Your task to perform on an android device: toggle airplane mode Image 0: 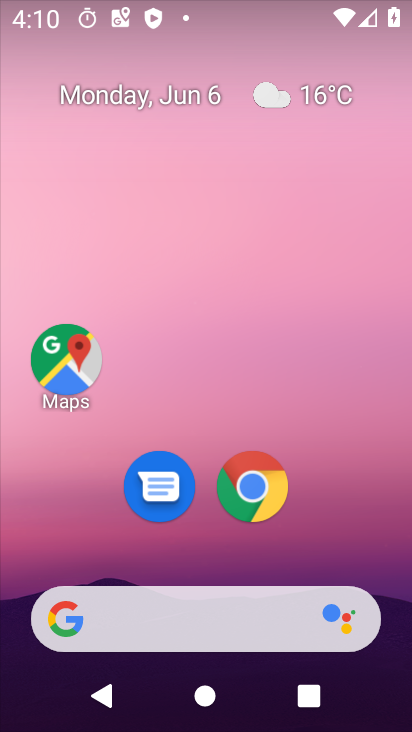
Step 0: drag from (232, 7) to (200, 485)
Your task to perform on an android device: toggle airplane mode Image 1: 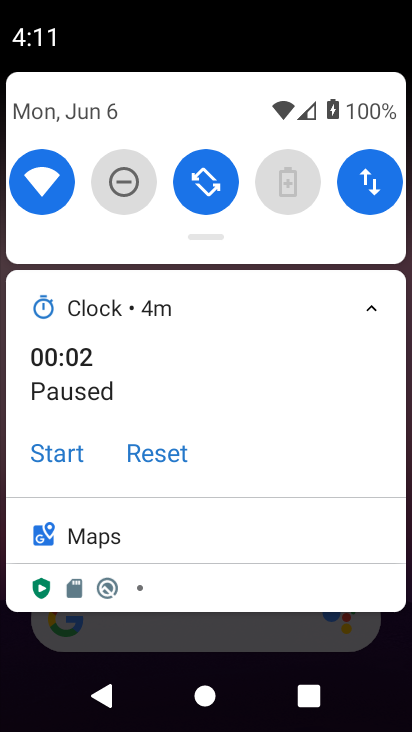
Step 1: drag from (314, 226) to (305, 501)
Your task to perform on an android device: toggle airplane mode Image 2: 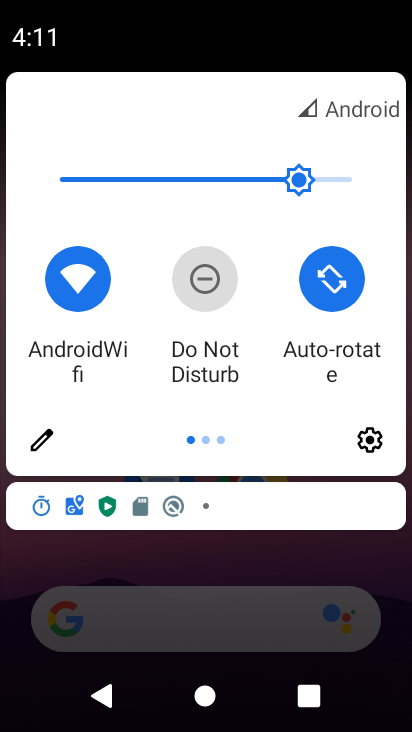
Step 2: drag from (380, 344) to (71, 336)
Your task to perform on an android device: toggle airplane mode Image 3: 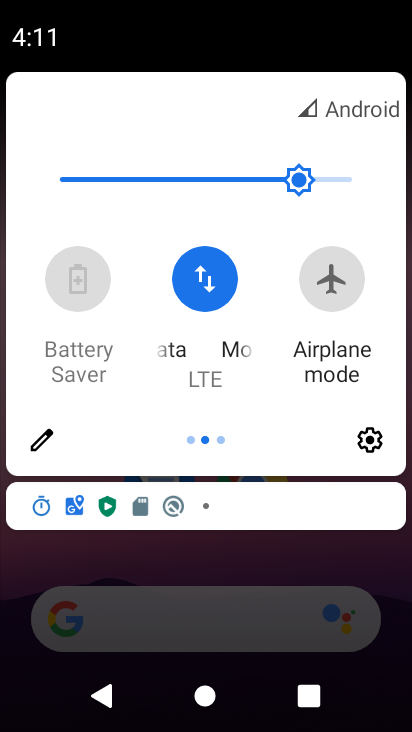
Step 3: drag from (340, 343) to (49, 322)
Your task to perform on an android device: toggle airplane mode Image 4: 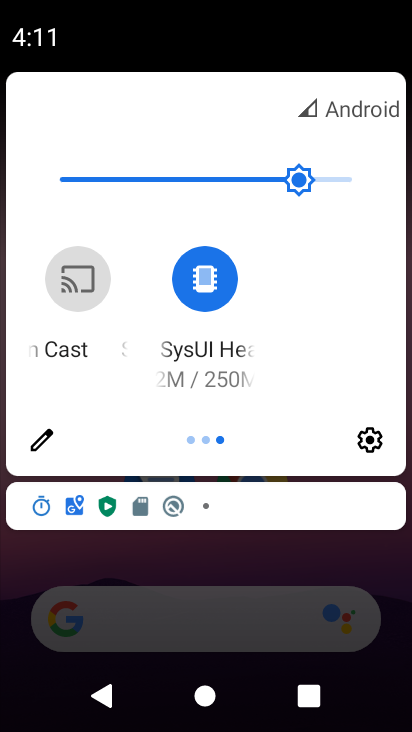
Step 4: drag from (107, 321) to (355, 330)
Your task to perform on an android device: toggle airplane mode Image 5: 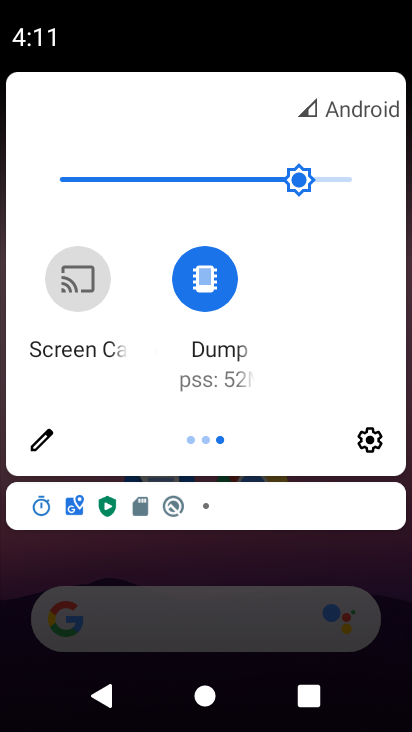
Step 5: drag from (129, 331) to (367, 393)
Your task to perform on an android device: toggle airplane mode Image 6: 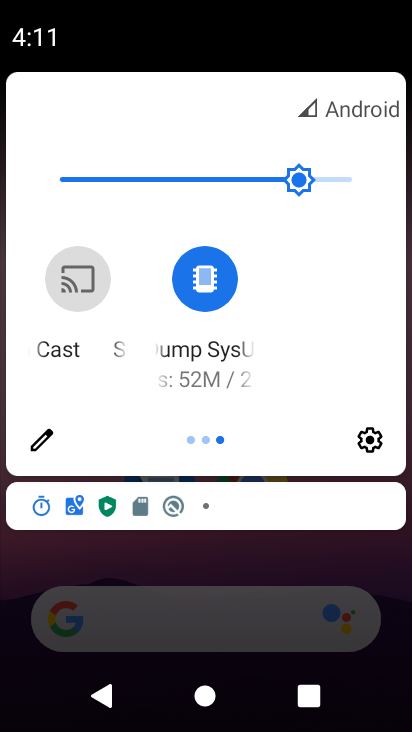
Step 6: drag from (112, 326) to (385, 355)
Your task to perform on an android device: toggle airplane mode Image 7: 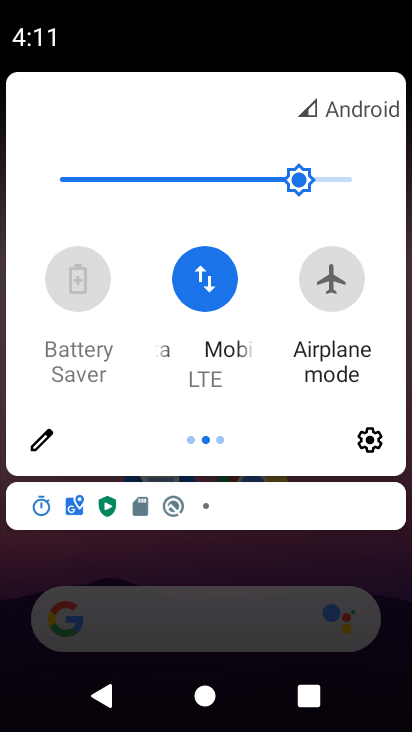
Step 7: click (328, 270)
Your task to perform on an android device: toggle airplane mode Image 8: 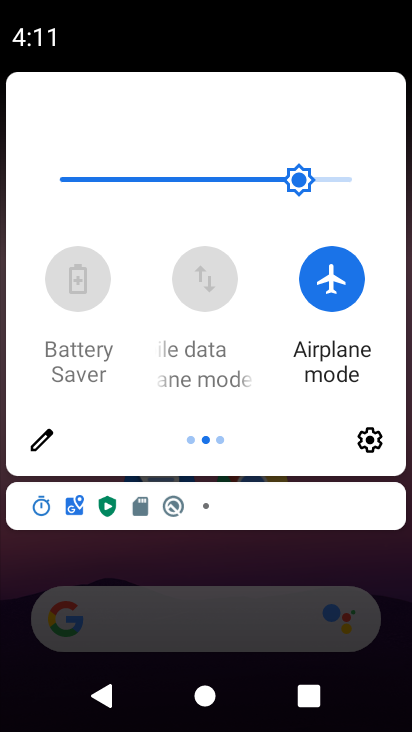
Step 8: task complete